Your task to perform on an android device: Clear the cart on target.com. Search for "logitech g pro" on target.com, select the first entry, add it to the cart, then select checkout. Image 0: 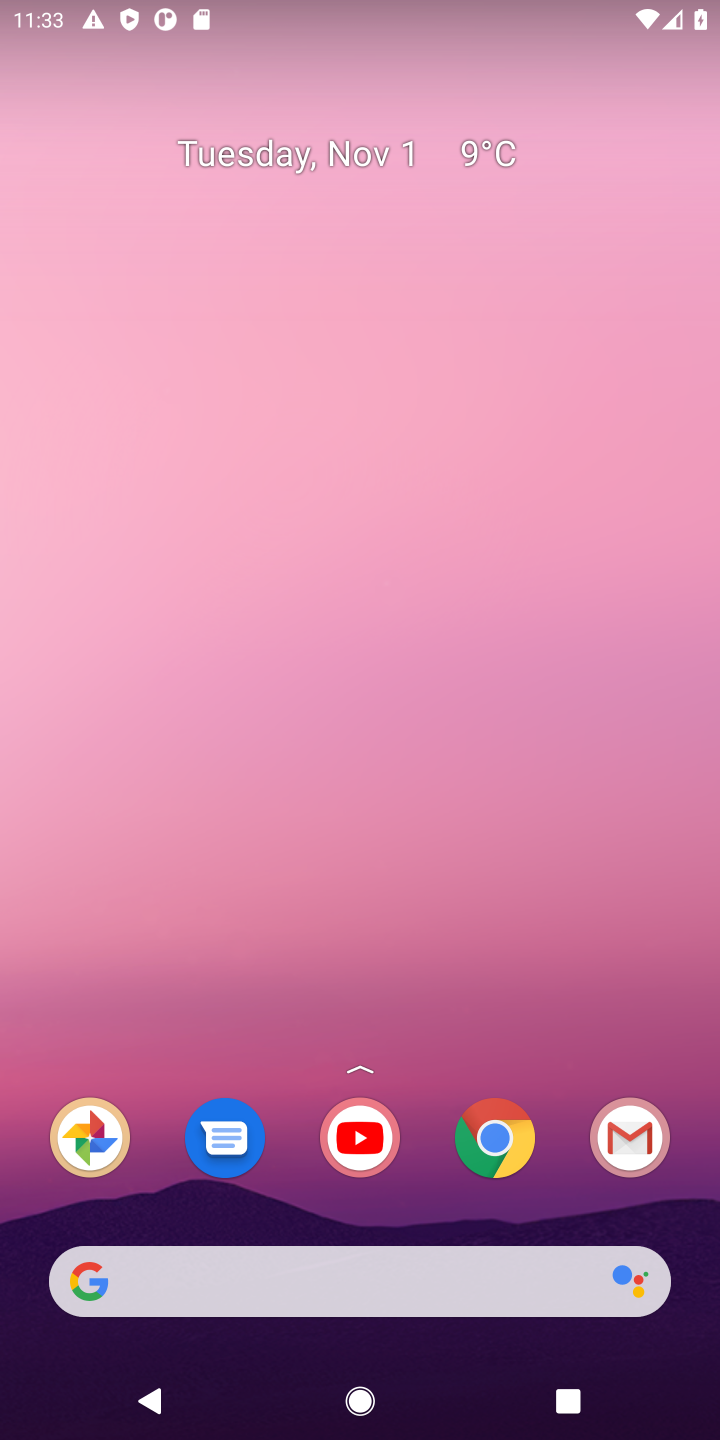
Step 0: click (328, 1283)
Your task to perform on an android device: Clear the cart on target.com. Search for "logitech g pro" on target.com, select the first entry, add it to the cart, then select checkout. Image 1: 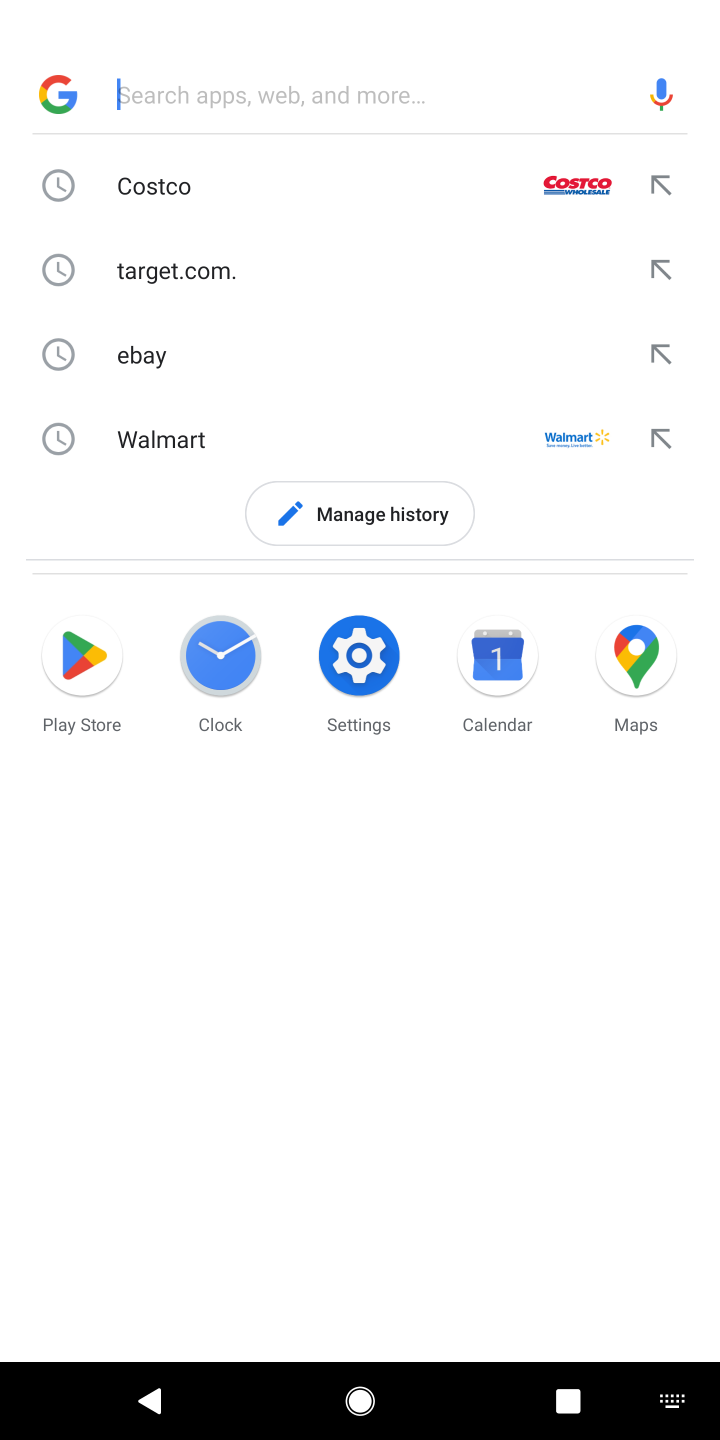
Step 1: type "target.com"
Your task to perform on an android device: Clear the cart on target.com. Search for "logitech g pro" on target.com, select the first entry, add it to the cart, then select checkout. Image 2: 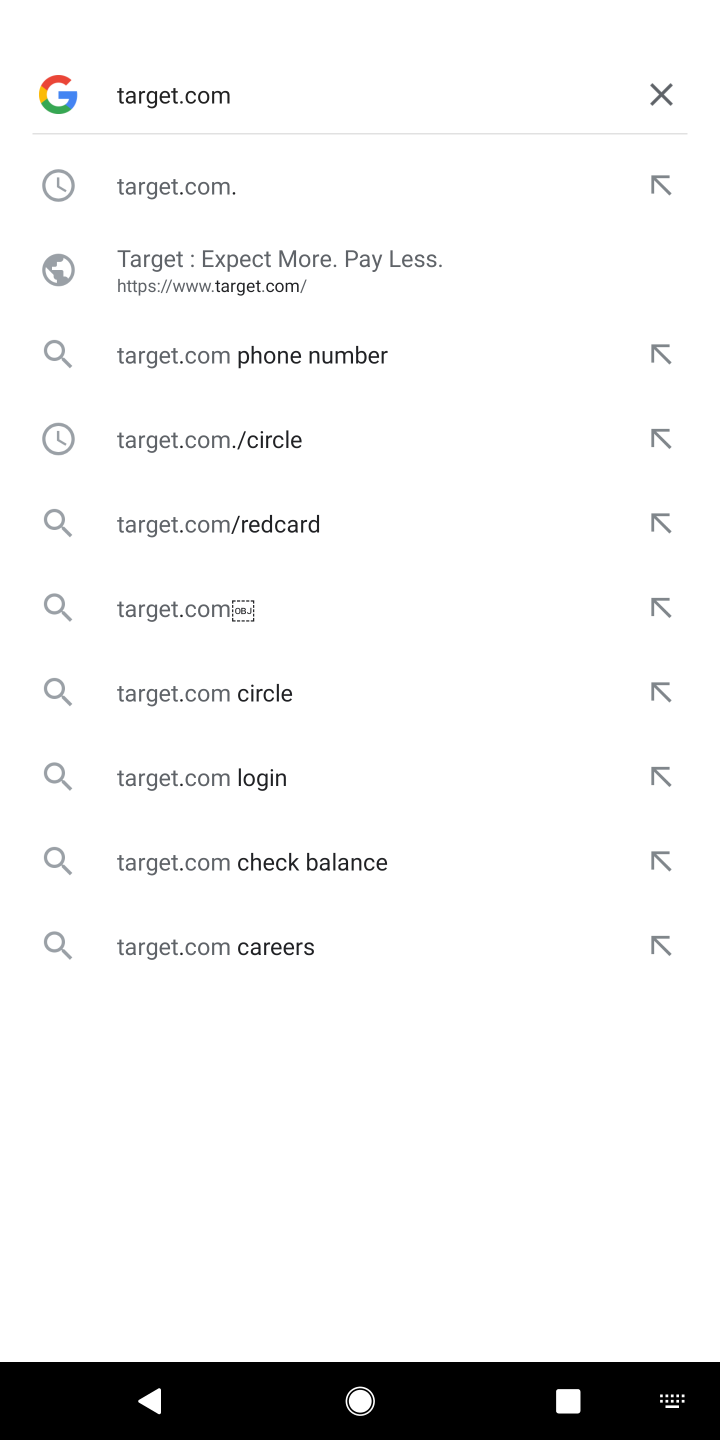
Step 2: type ""
Your task to perform on an android device: Clear the cart on target.com. Search for "logitech g pro" on target.com, select the first entry, add it to the cart, then select checkout. Image 3: 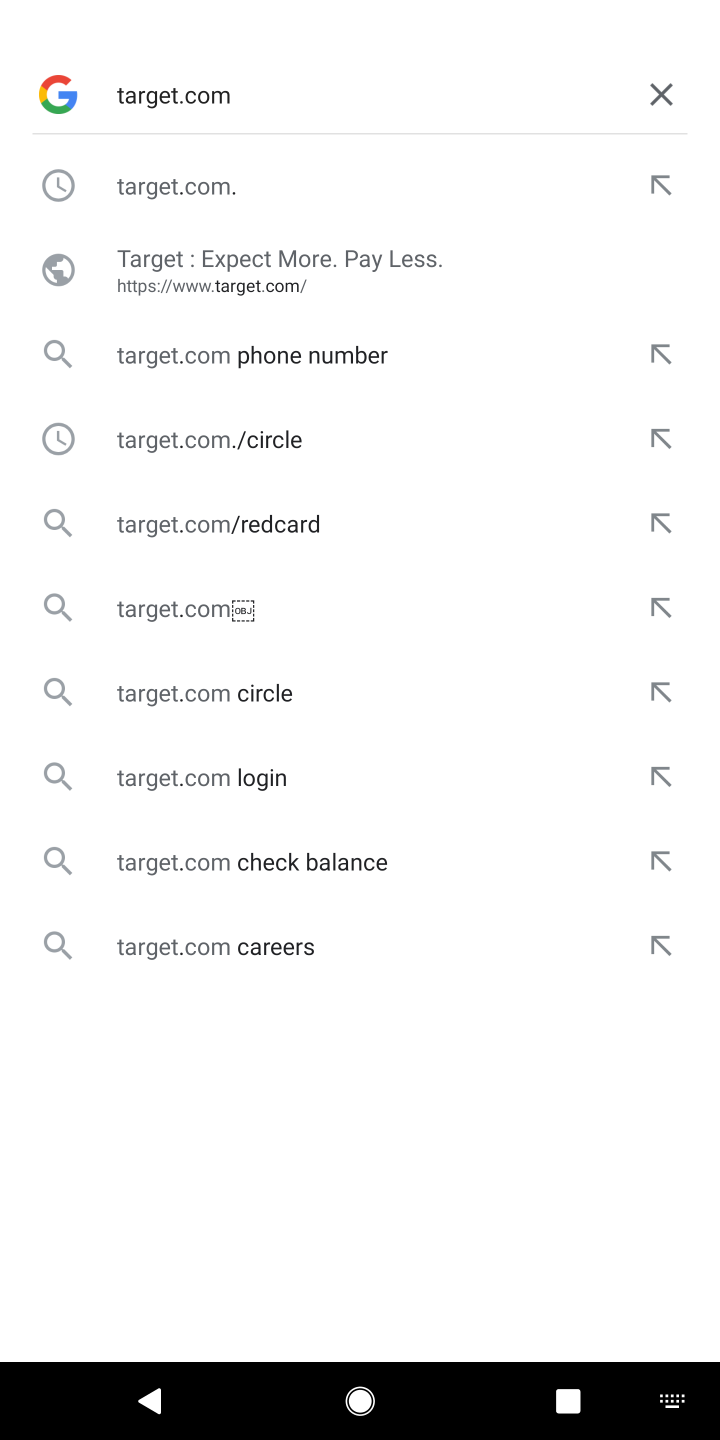
Step 3: click (249, 175)
Your task to perform on an android device: Clear the cart on target.com. Search for "logitech g pro" on target.com, select the first entry, add it to the cart, then select checkout. Image 4: 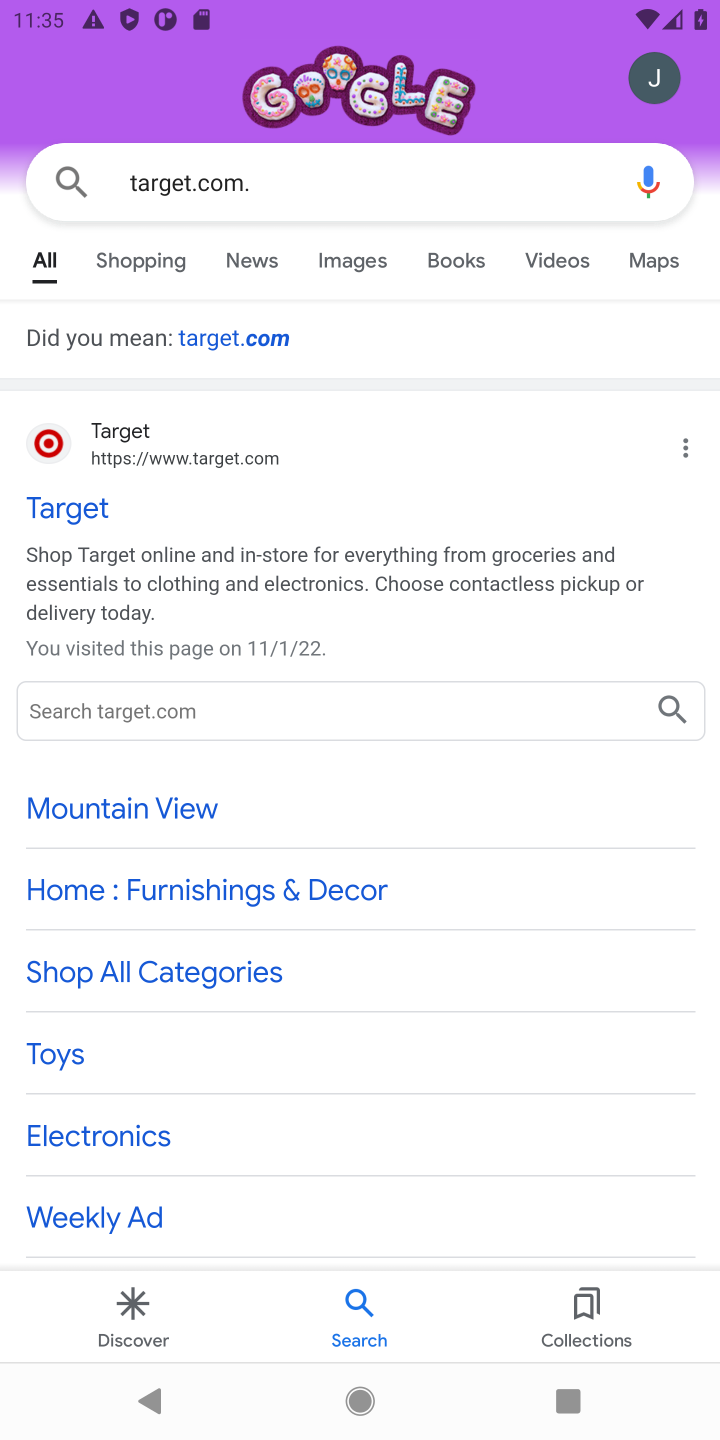
Step 4: click (65, 485)
Your task to perform on an android device: Clear the cart on target.com. Search for "logitech g pro" on target.com, select the first entry, add it to the cart, then select checkout. Image 5: 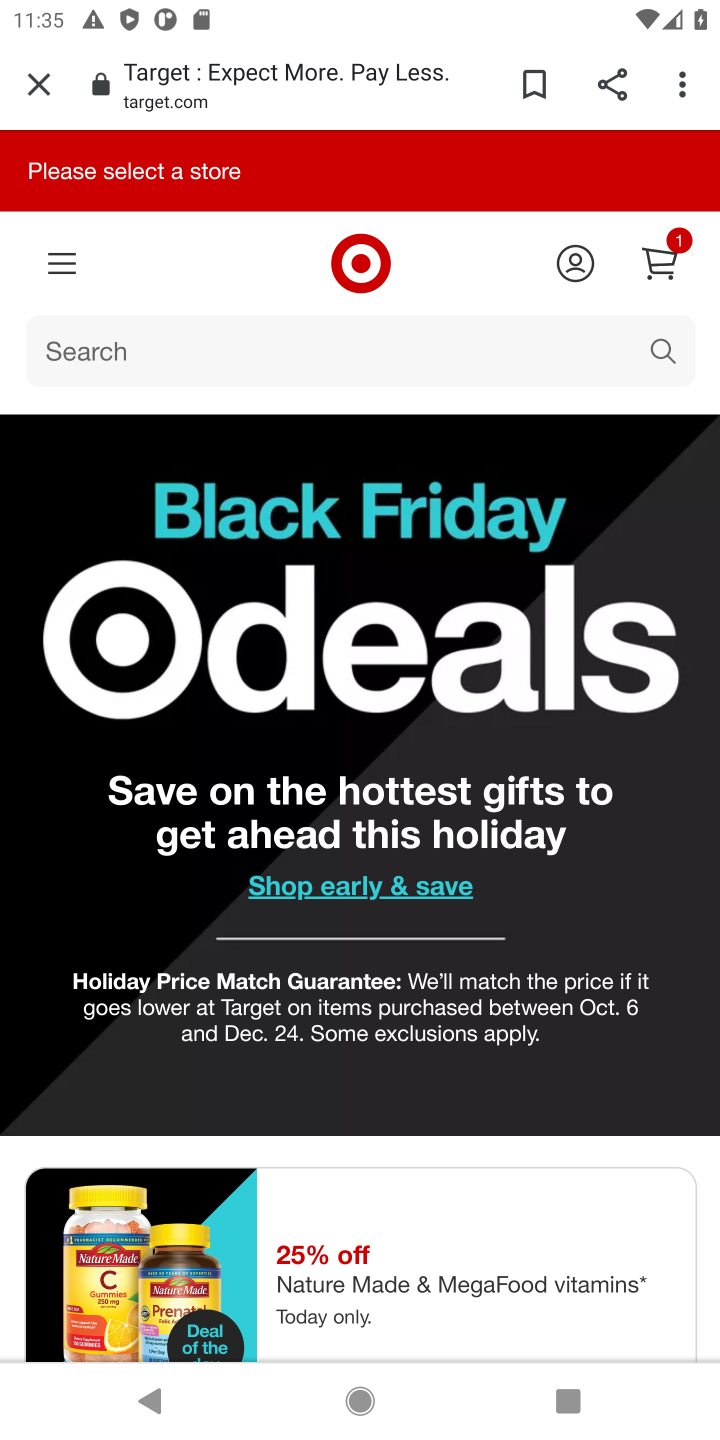
Step 5: drag from (487, 1059) to (409, 440)
Your task to perform on an android device: Clear the cart on target.com. Search for "logitech g pro" on target.com, select the first entry, add it to the cart, then select checkout. Image 6: 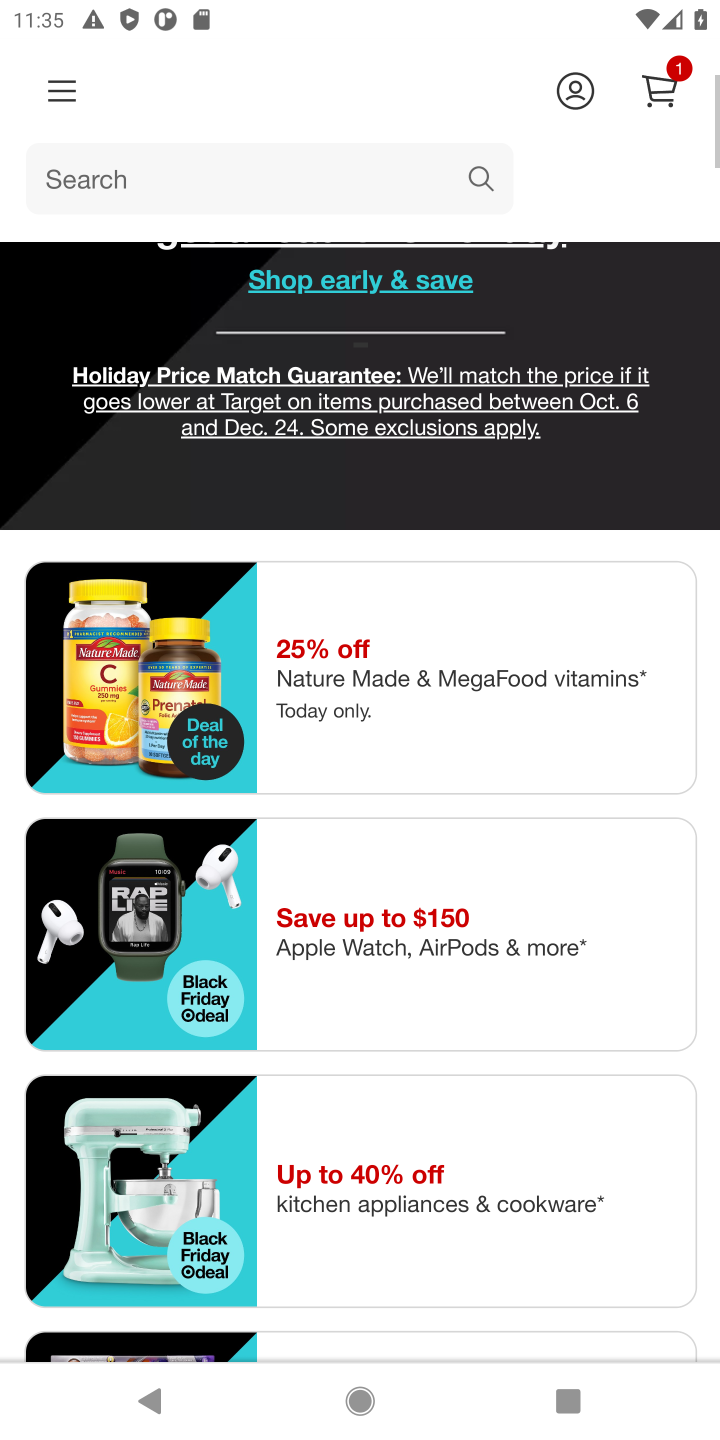
Step 6: drag from (393, 540) to (446, 1020)
Your task to perform on an android device: Clear the cart on target.com. Search for "logitech g pro" on target.com, select the first entry, add it to the cart, then select checkout. Image 7: 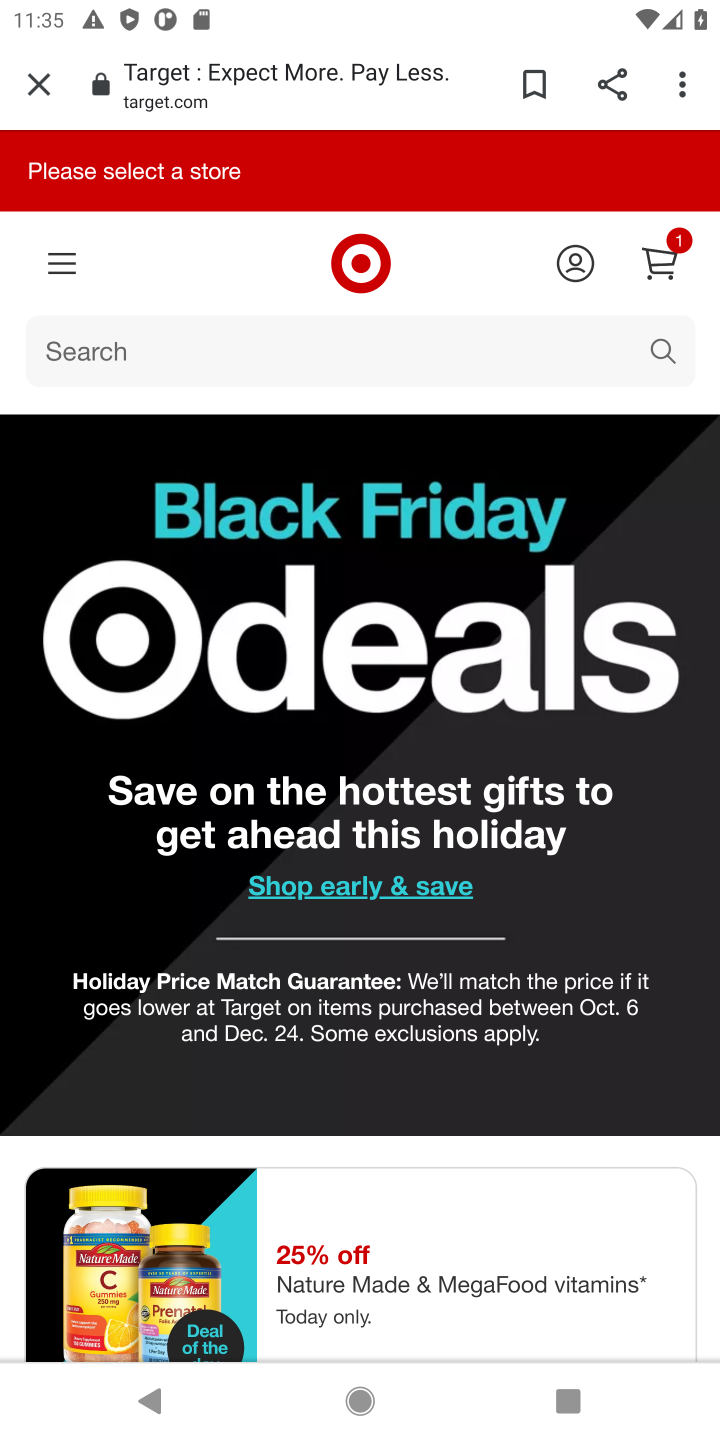
Step 7: click (146, 343)
Your task to perform on an android device: Clear the cart on target.com. Search for "logitech g pro" on target.com, select the first entry, add it to the cart, then select checkout. Image 8: 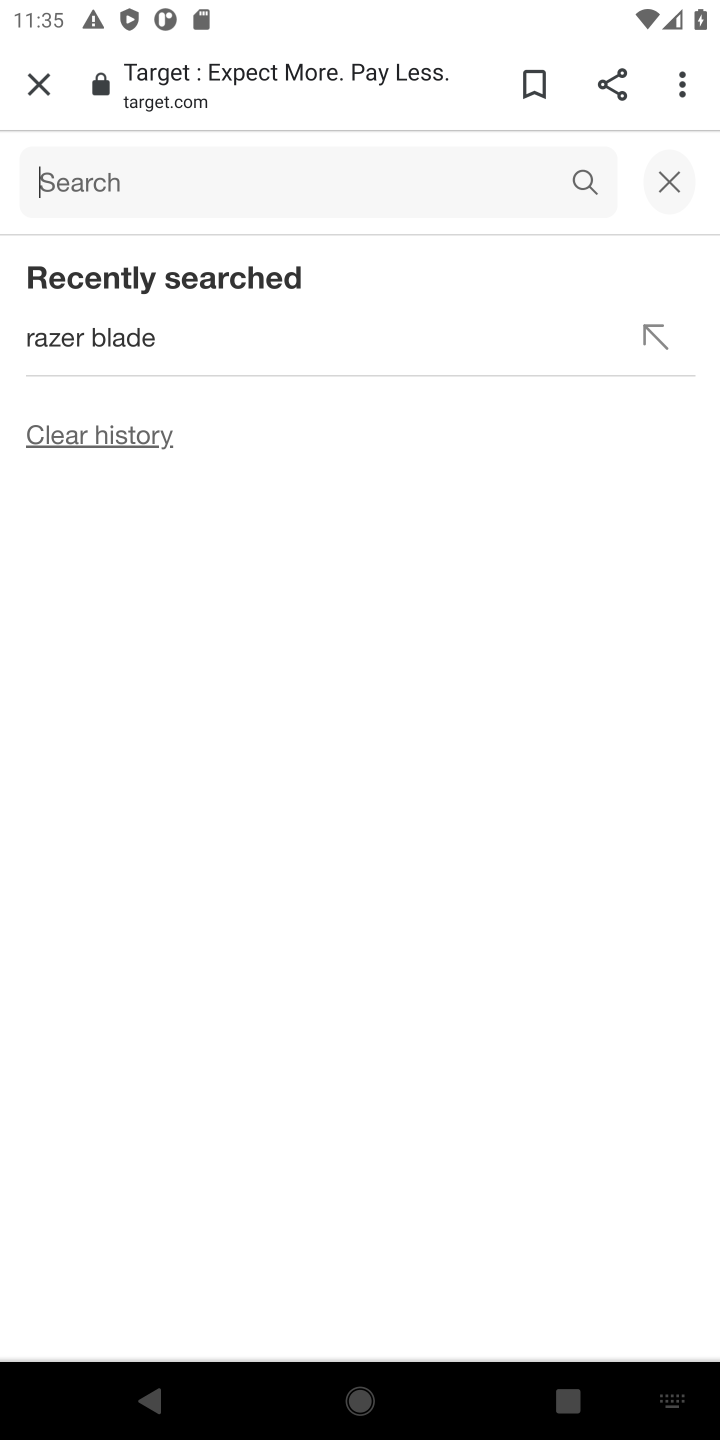
Step 8: type "logitech g pro"
Your task to perform on an android device: Clear the cart on target.com. Search for "logitech g pro" on target.com, select the first entry, add it to the cart, then select checkout. Image 9: 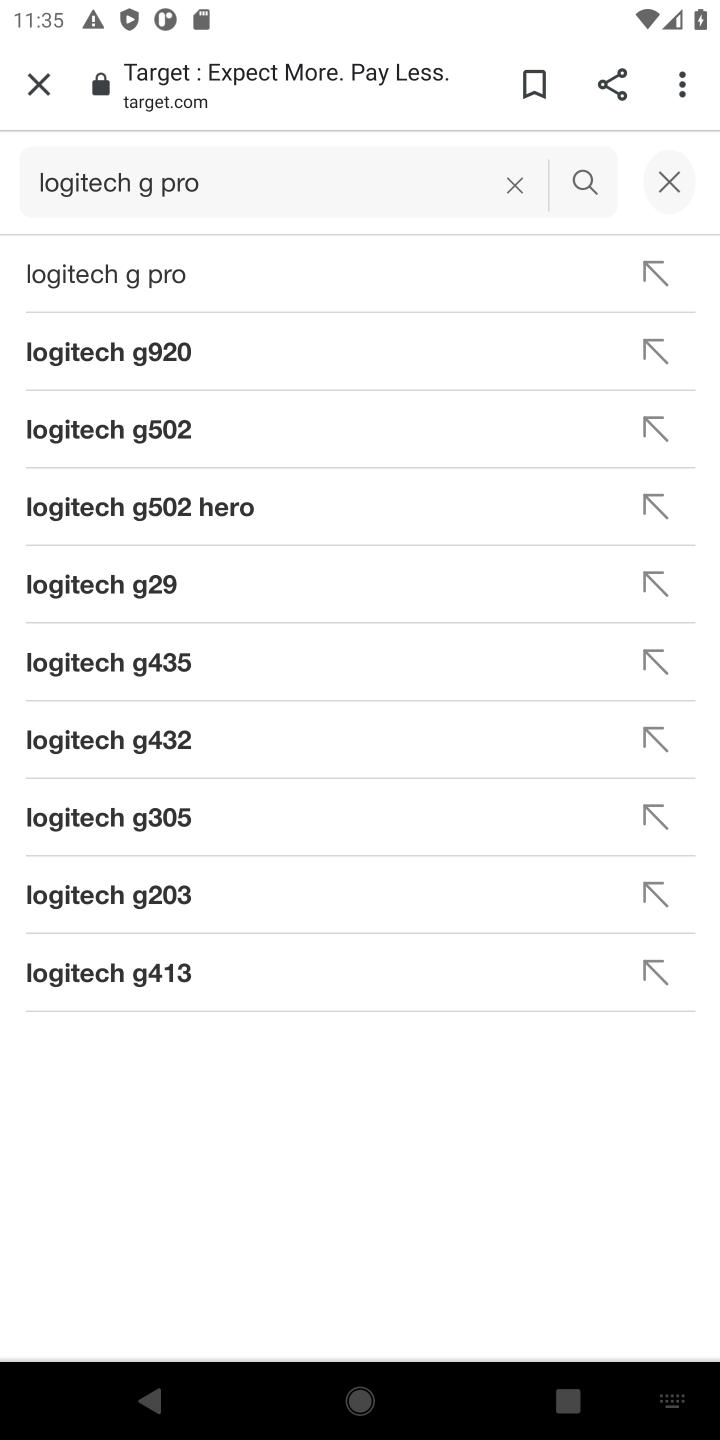
Step 9: click (190, 253)
Your task to perform on an android device: Clear the cart on target.com. Search for "logitech g pro" on target.com, select the first entry, add it to the cart, then select checkout. Image 10: 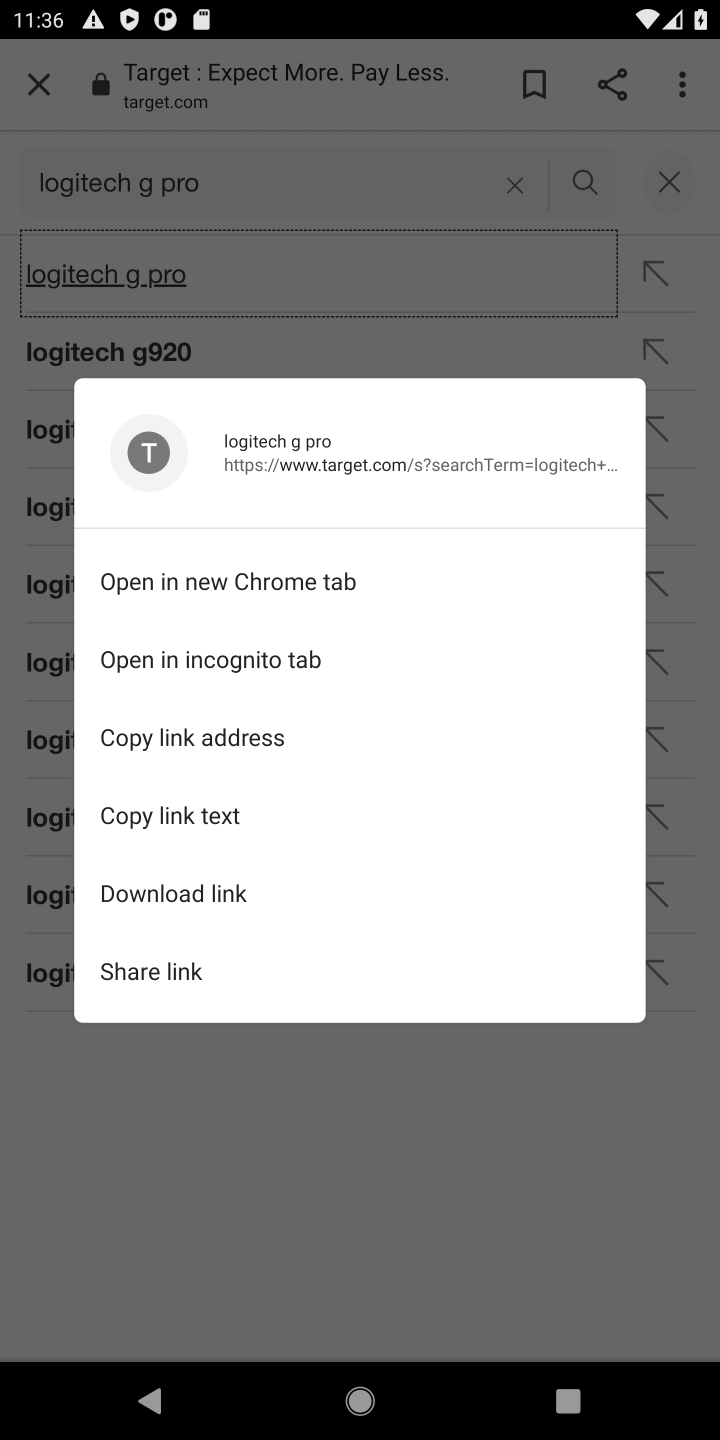
Step 10: click (441, 1277)
Your task to perform on an android device: Clear the cart on target.com. Search for "logitech g pro" on target.com, select the first entry, add it to the cart, then select checkout. Image 11: 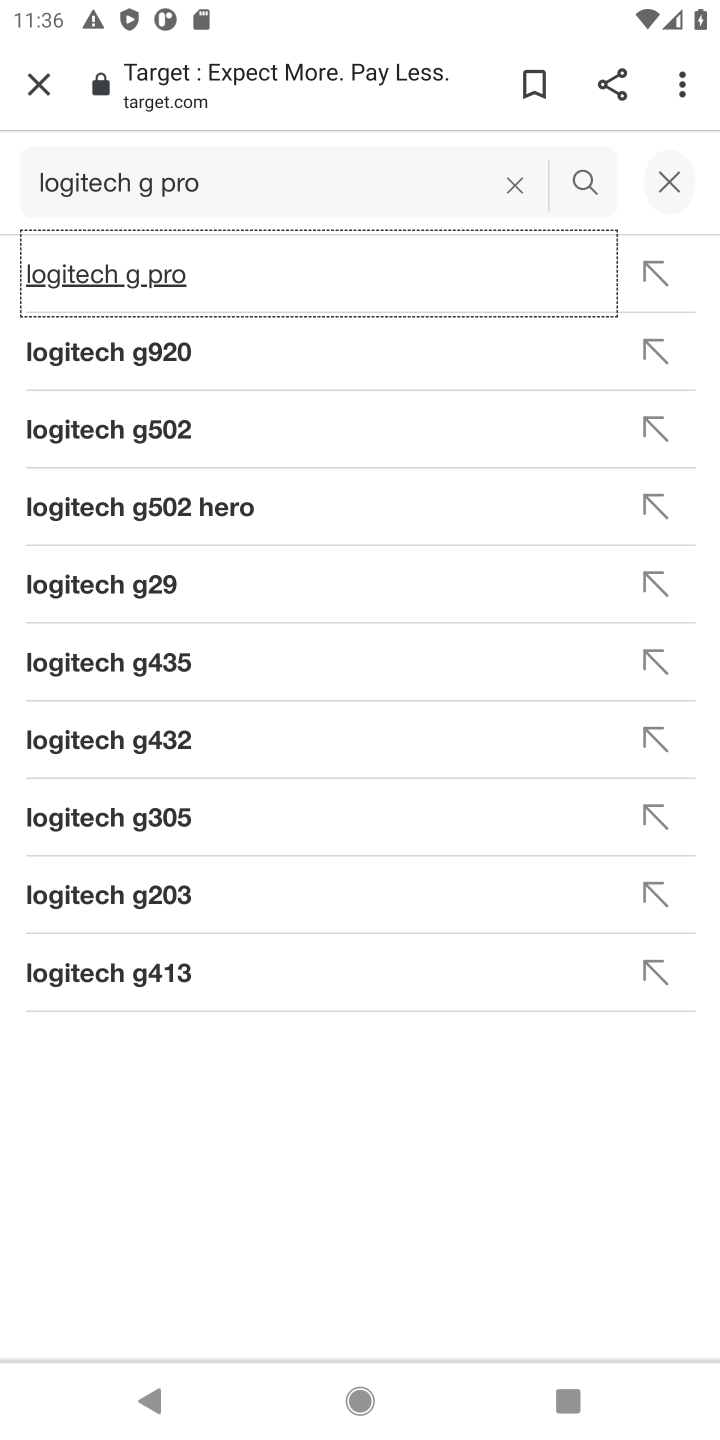
Step 11: click (151, 280)
Your task to perform on an android device: Clear the cart on target.com. Search for "logitech g pro" on target.com, select the first entry, add it to the cart, then select checkout. Image 12: 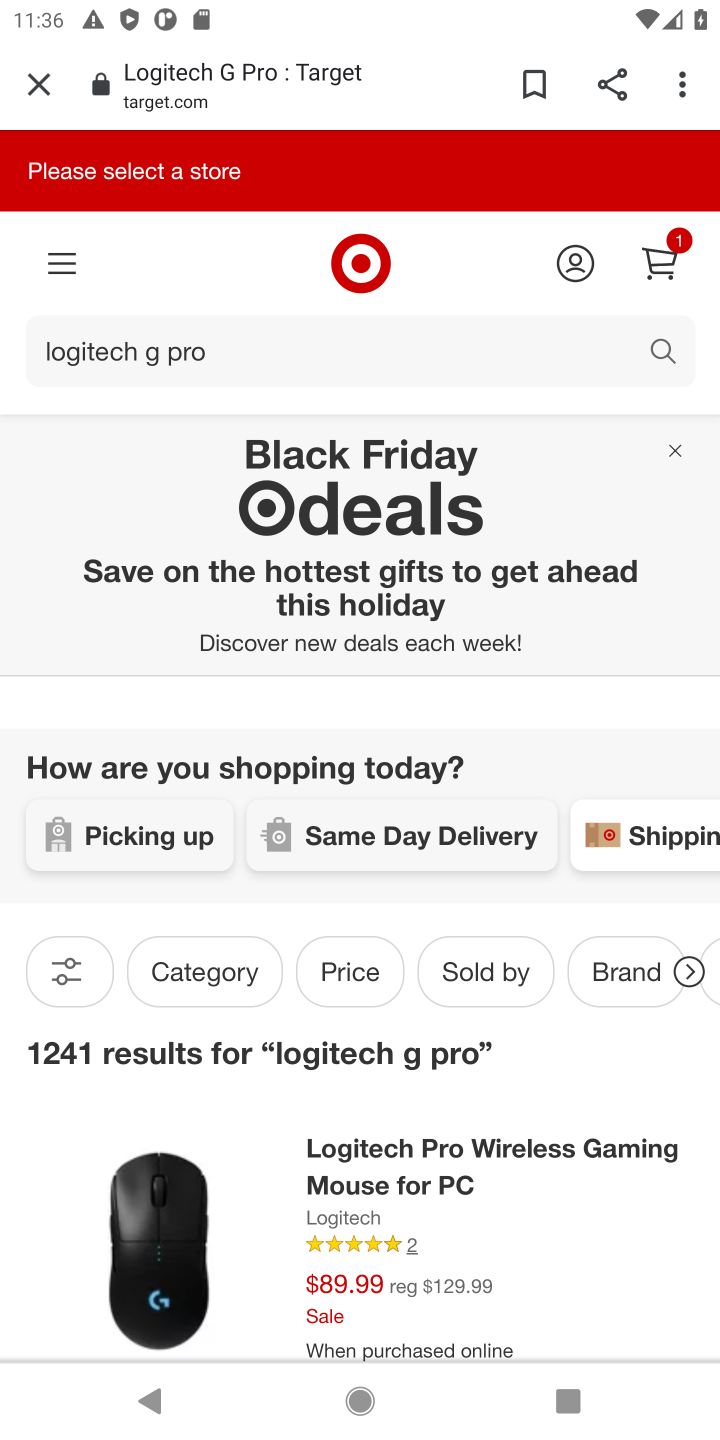
Step 12: drag from (448, 1077) to (567, 457)
Your task to perform on an android device: Clear the cart on target.com. Search for "logitech g pro" on target.com, select the first entry, add it to the cart, then select checkout. Image 13: 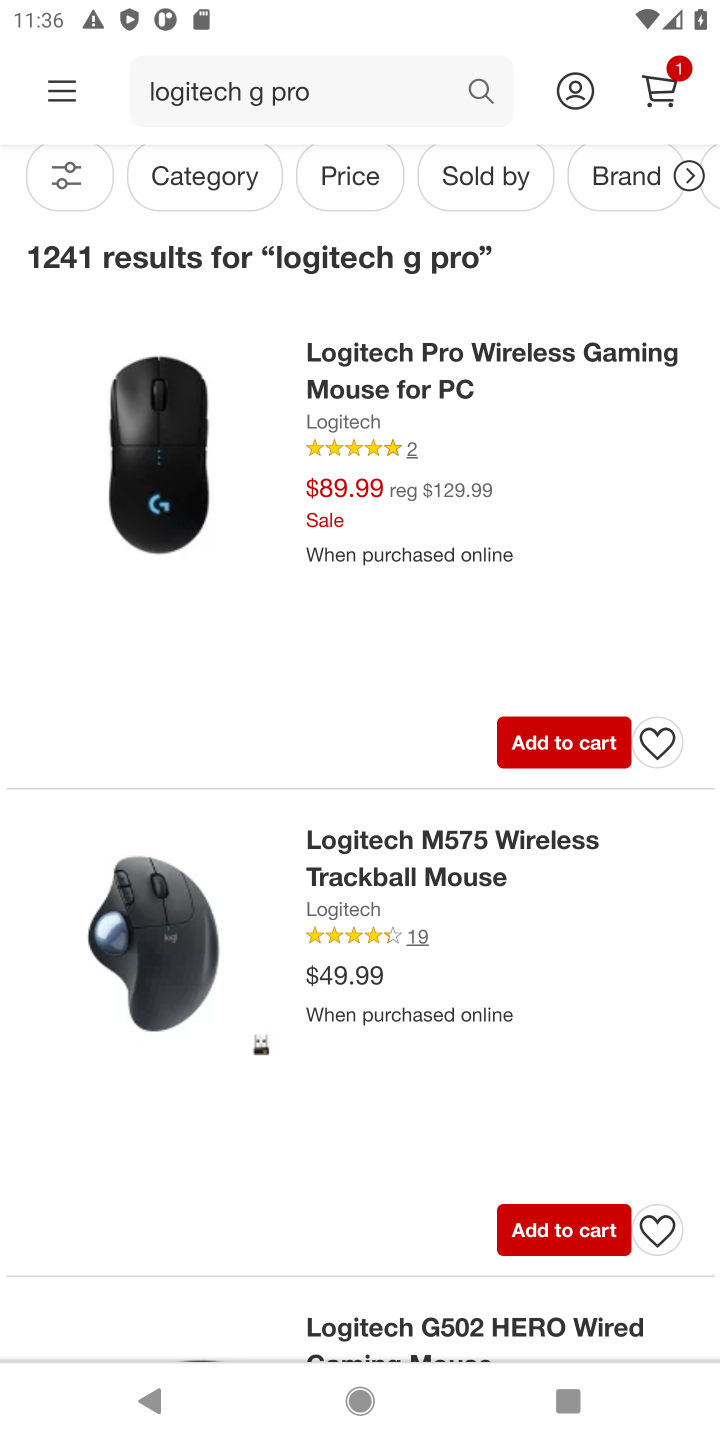
Step 13: click (407, 420)
Your task to perform on an android device: Clear the cart on target.com. Search for "logitech g pro" on target.com, select the first entry, add it to the cart, then select checkout. Image 14: 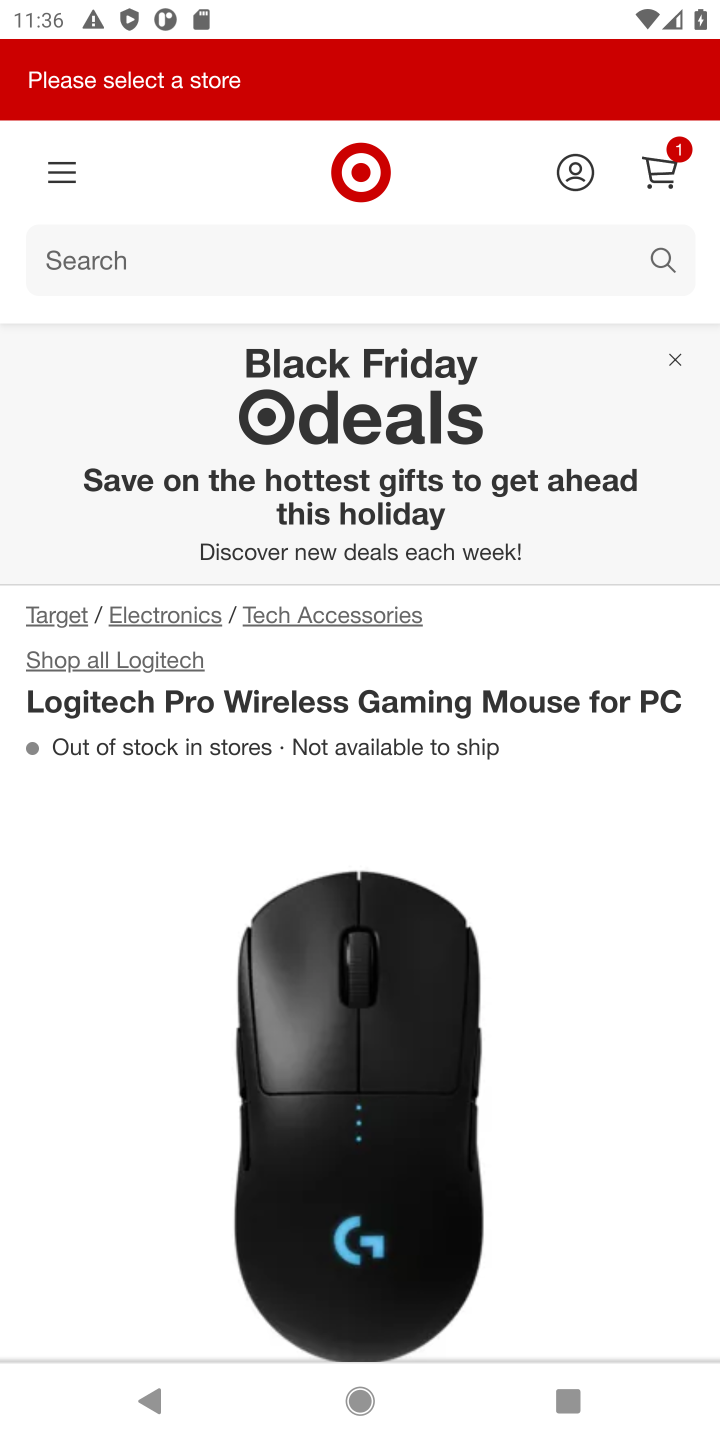
Step 14: drag from (576, 1174) to (496, 590)
Your task to perform on an android device: Clear the cart on target.com. Search for "logitech g pro" on target.com, select the first entry, add it to the cart, then select checkout. Image 15: 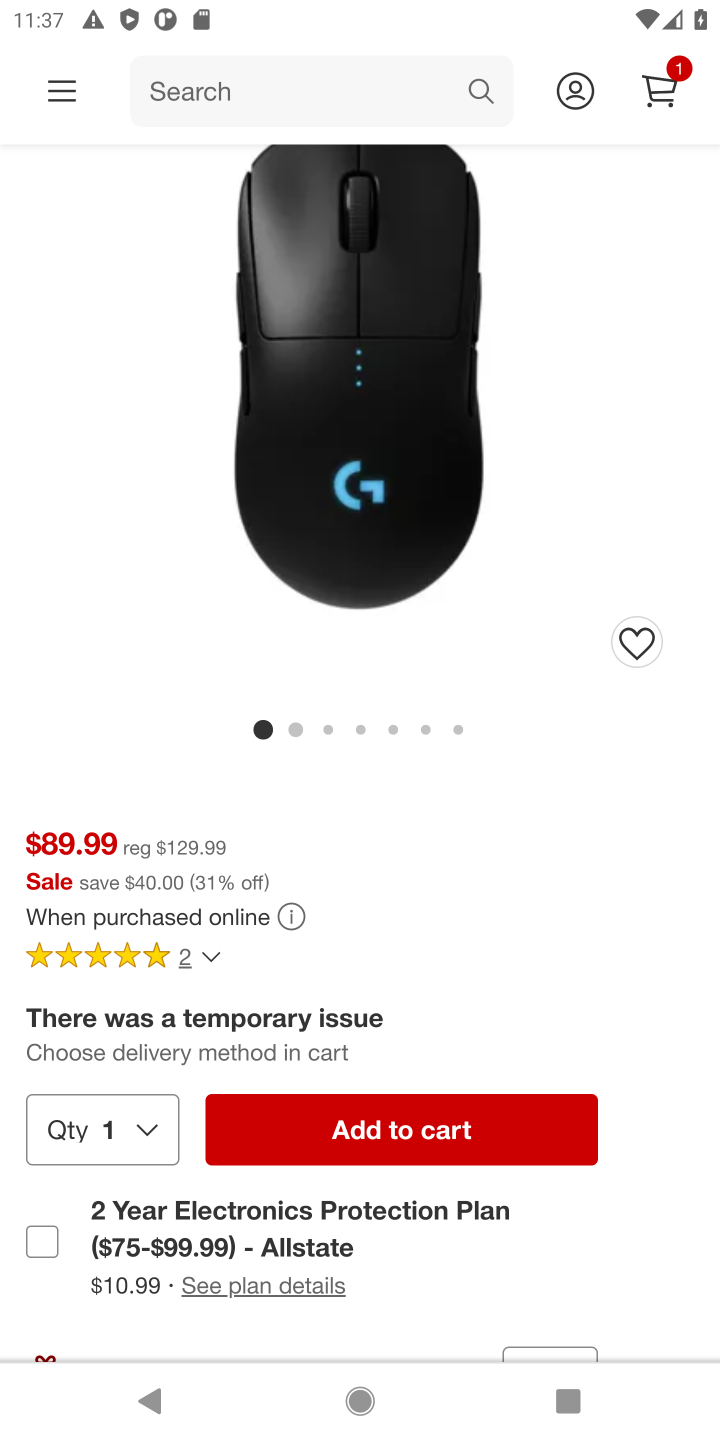
Step 15: click (665, 102)
Your task to perform on an android device: Clear the cart on target.com. Search for "logitech g pro" on target.com, select the first entry, add it to the cart, then select checkout. Image 16: 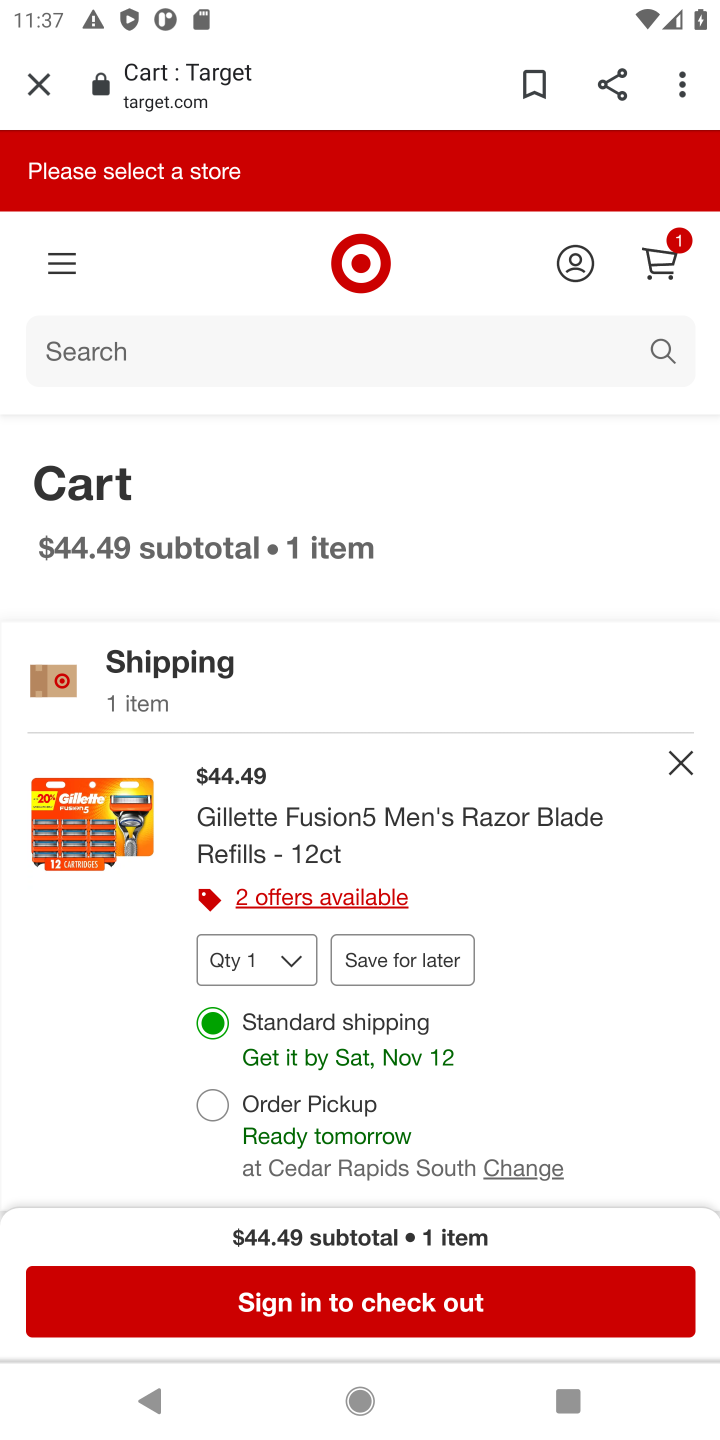
Step 16: task complete